Your task to perform on an android device: turn off priority inbox in the gmail app Image 0: 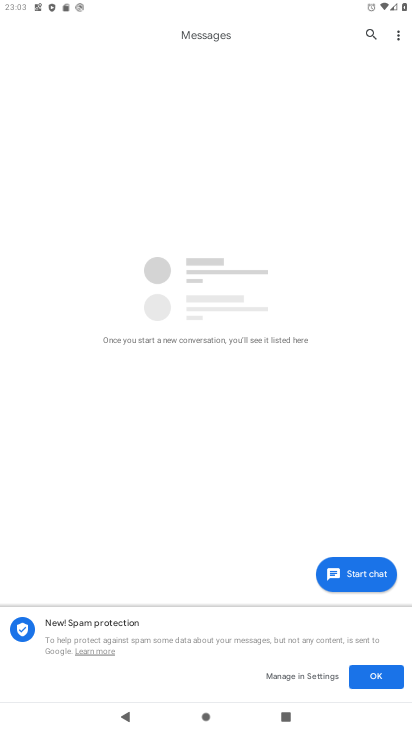
Step 0: press home button
Your task to perform on an android device: turn off priority inbox in the gmail app Image 1: 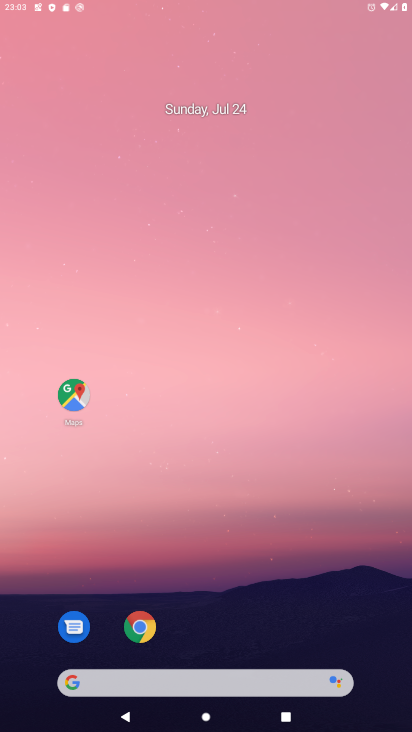
Step 1: drag from (179, 623) to (268, 205)
Your task to perform on an android device: turn off priority inbox in the gmail app Image 2: 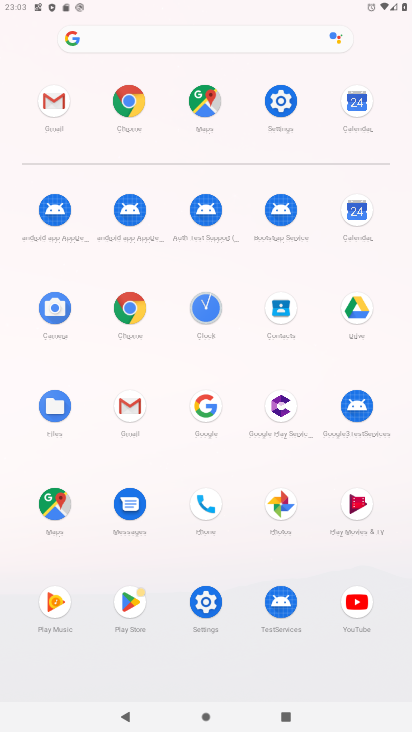
Step 2: click (117, 408)
Your task to perform on an android device: turn off priority inbox in the gmail app Image 3: 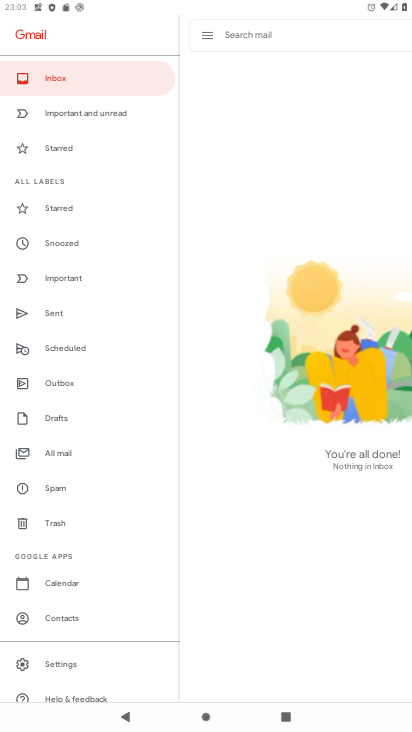
Step 3: click (82, 659)
Your task to perform on an android device: turn off priority inbox in the gmail app Image 4: 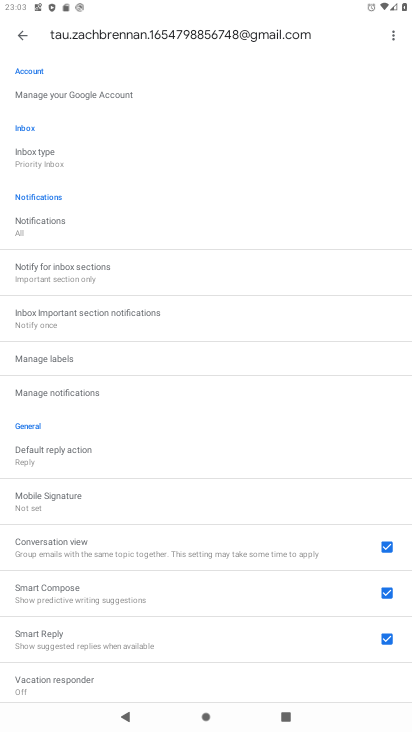
Step 4: click (64, 153)
Your task to perform on an android device: turn off priority inbox in the gmail app Image 5: 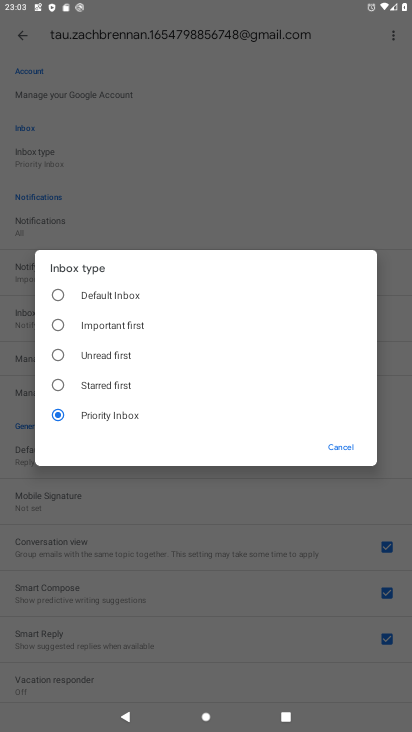
Step 5: click (66, 294)
Your task to perform on an android device: turn off priority inbox in the gmail app Image 6: 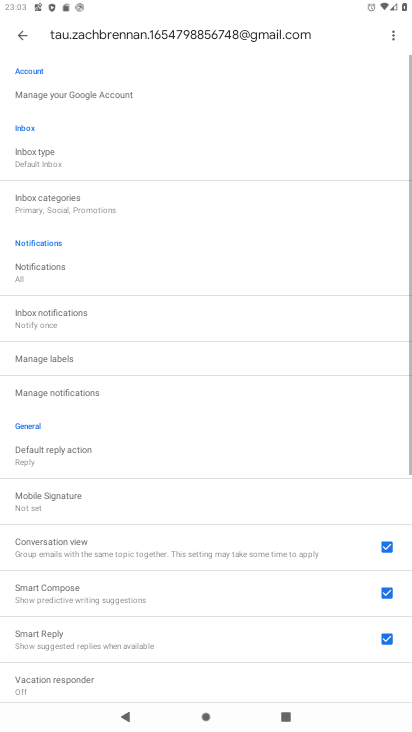
Step 6: task complete